Your task to perform on an android device: turn on the 12-hour format for clock Image 0: 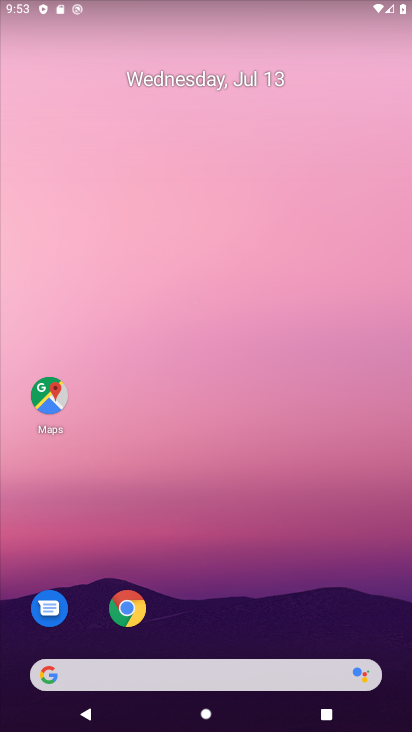
Step 0: drag from (328, 633) to (343, 205)
Your task to perform on an android device: turn on the 12-hour format for clock Image 1: 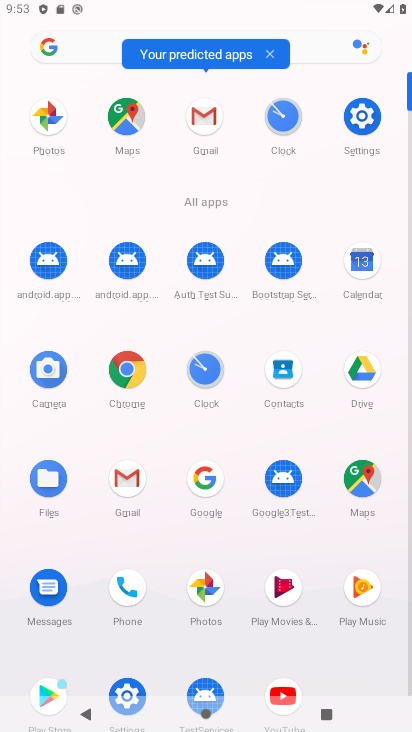
Step 1: click (290, 122)
Your task to perform on an android device: turn on the 12-hour format for clock Image 2: 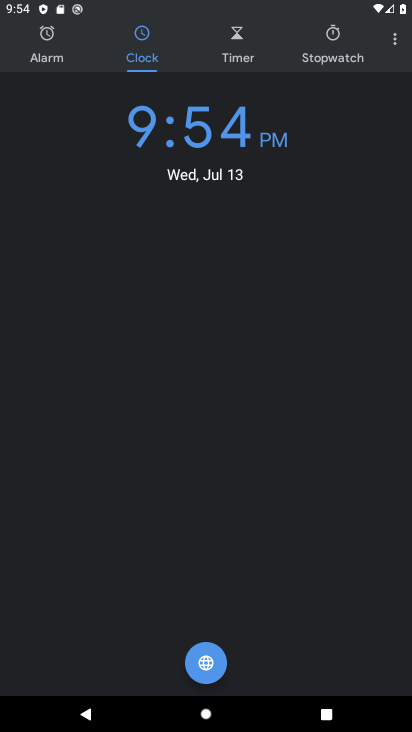
Step 2: click (398, 36)
Your task to perform on an android device: turn on the 12-hour format for clock Image 3: 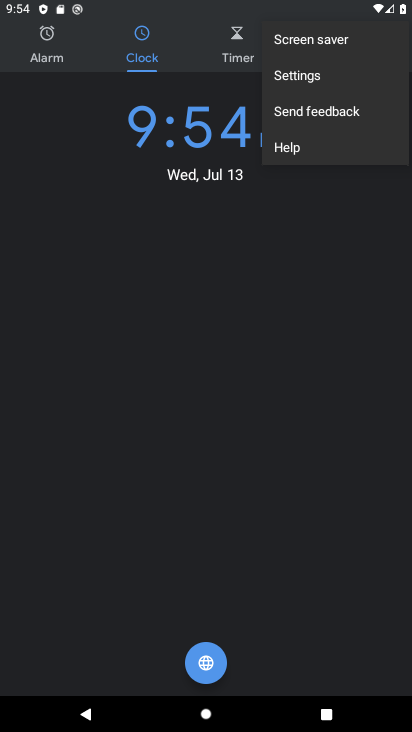
Step 3: click (381, 67)
Your task to perform on an android device: turn on the 12-hour format for clock Image 4: 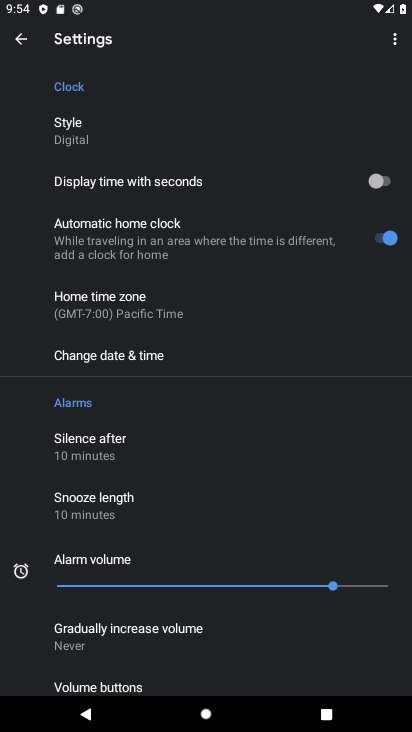
Step 4: click (187, 352)
Your task to perform on an android device: turn on the 12-hour format for clock Image 5: 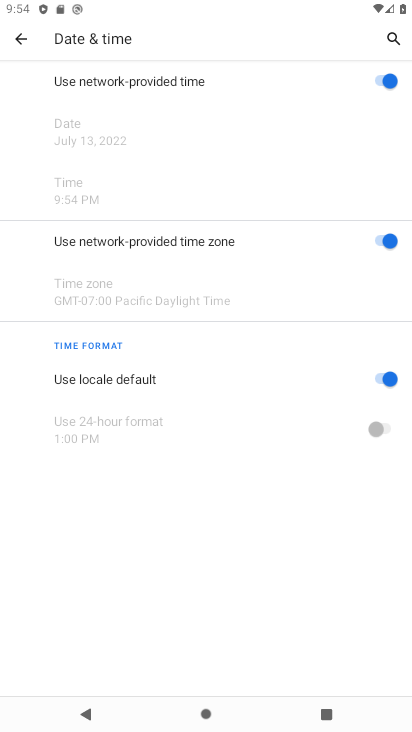
Step 5: task complete